Your task to perform on an android device: visit the assistant section in the google photos Image 0: 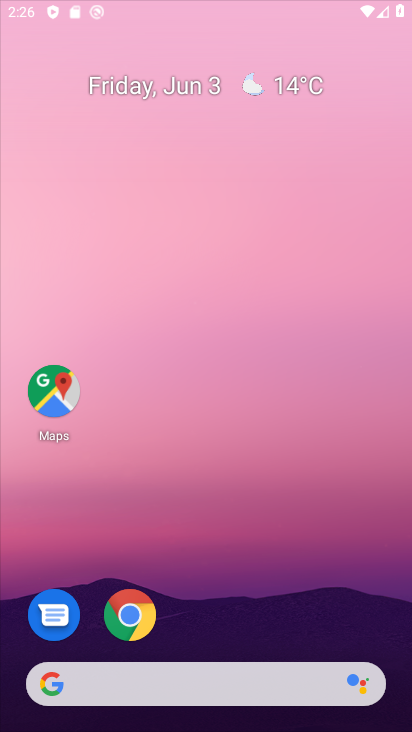
Step 0: press home button
Your task to perform on an android device: visit the assistant section in the google photos Image 1: 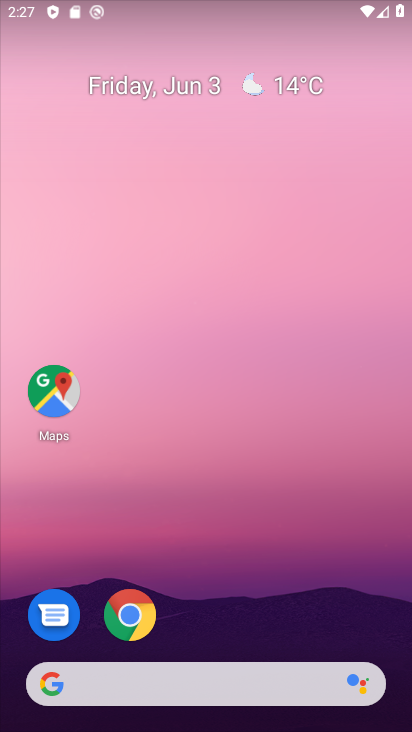
Step 1: drag from (228, 650) to (208, 11)
Your task to perform on an android device: visit the assistant section in the google photos Image 2: 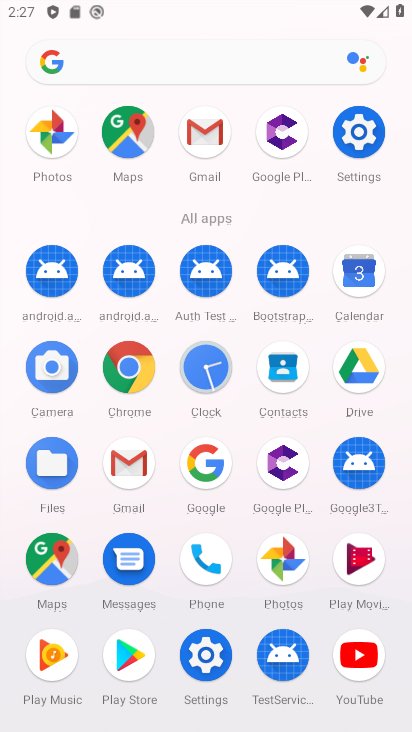
Step 2: click (287, 551)
Your task to perform on an android device: visit the assistant section in the google photos Image 3: 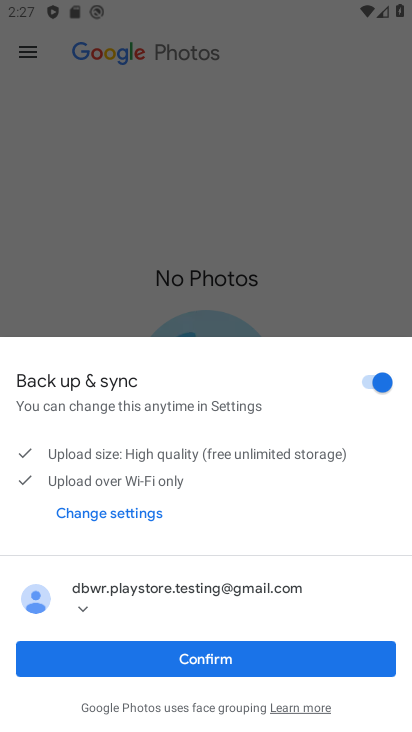
Step 3: click (145, 648)
Your task to perform on an android device: visit the assistant section in the google photos Image 4: 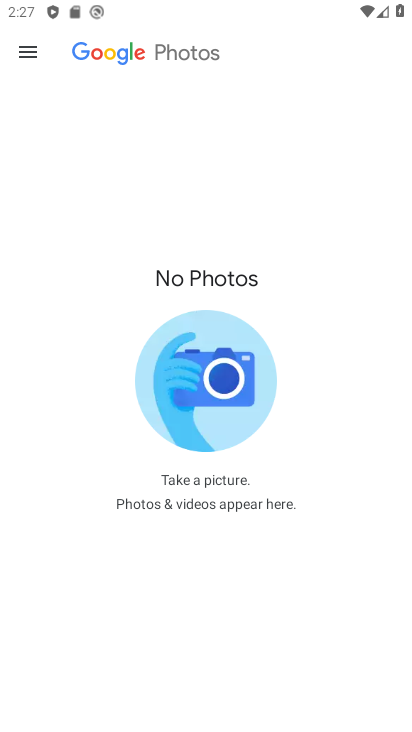
Step 4: click (132, 660)
Your task to perform on an android device: visit the assistant section in the google photos Image 5: 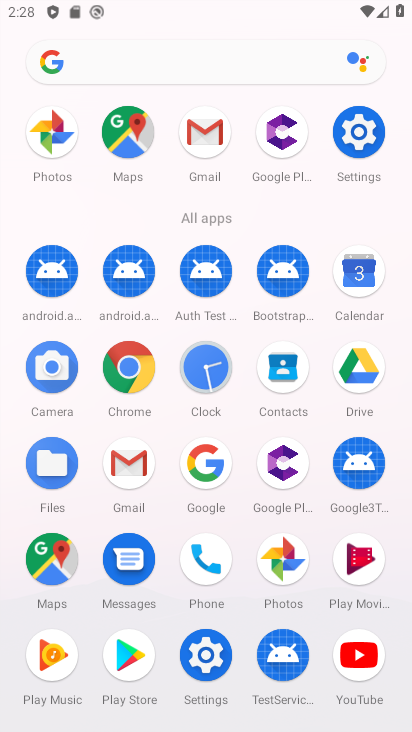
Step 5: click (288, 551)
Your task to perform on an android device: visit the assistant section in the google photos Image 6: 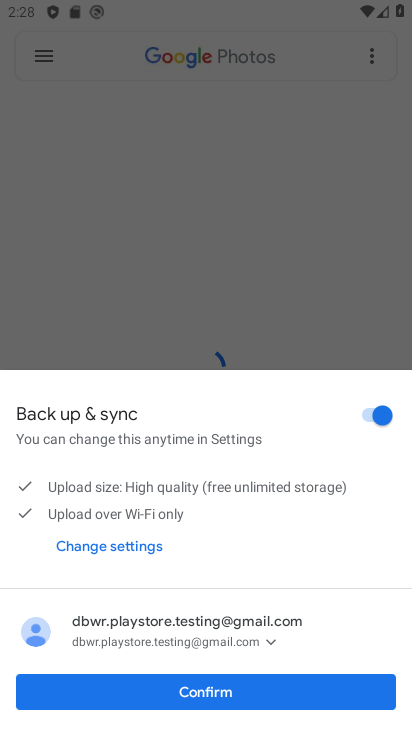
Step 6: click (260, 697)
Your task to perform on an android device: visit the assistant section in the google photos Image 7: 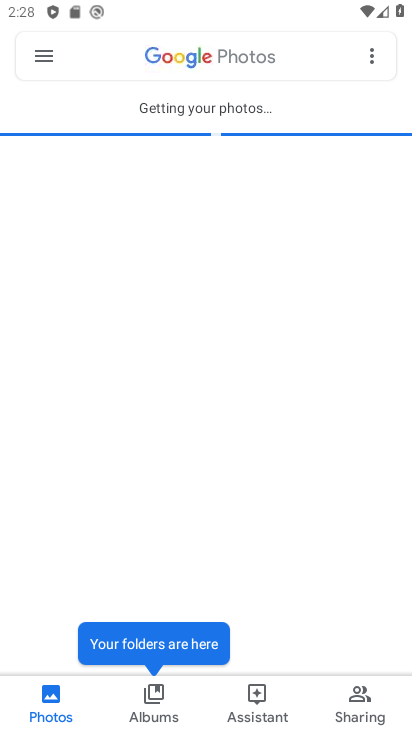
Step 7: click (260, 697)
Your task to perform on an android device: visit the assistant section in the google photos Image 8: 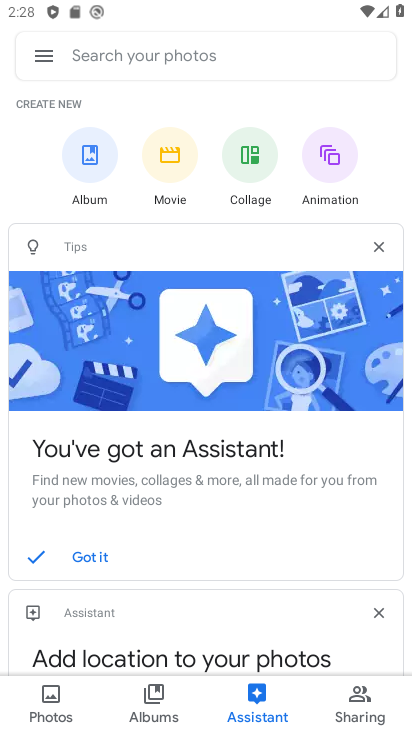
Step 8: task complete